Your task to perform on an android device: turn on the 12-hour format for clock Image 0: 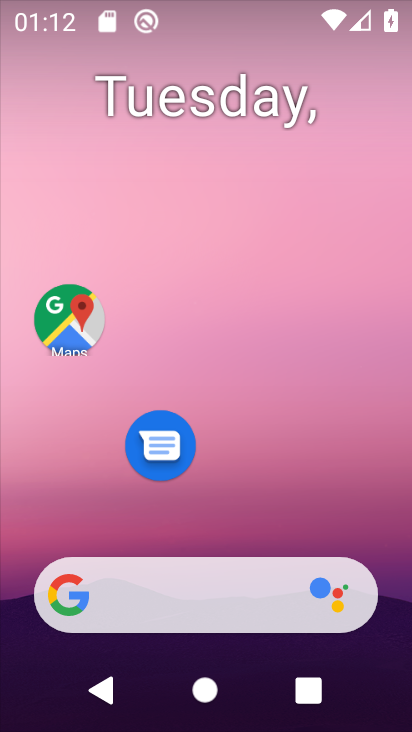
Step 0: drag from (322, 490) to (267, 94)
Your task to perform on an android device: turn on the 12-hour format for clock Image 1: 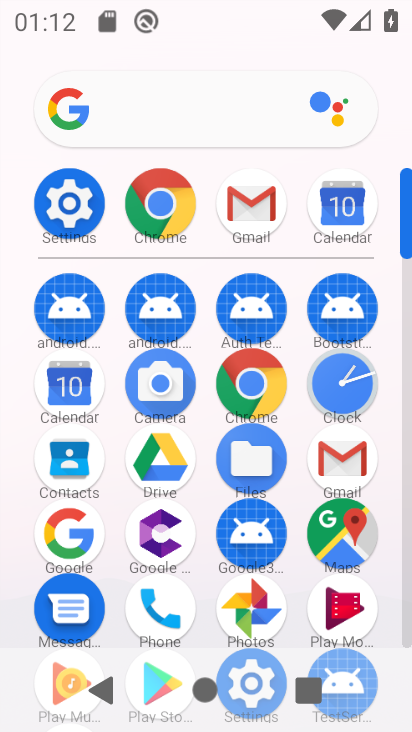
Step 1: click (335, 378)
Your task to perform on an android device: turn on the 12-hour format for clock Image 2: 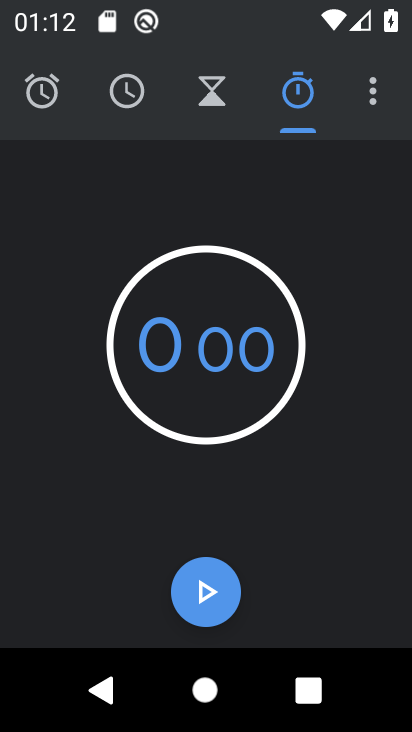
Step 2: click (370, 95)
Your task to perform on an android device: turn on the 12-hour format for clock Image 3: 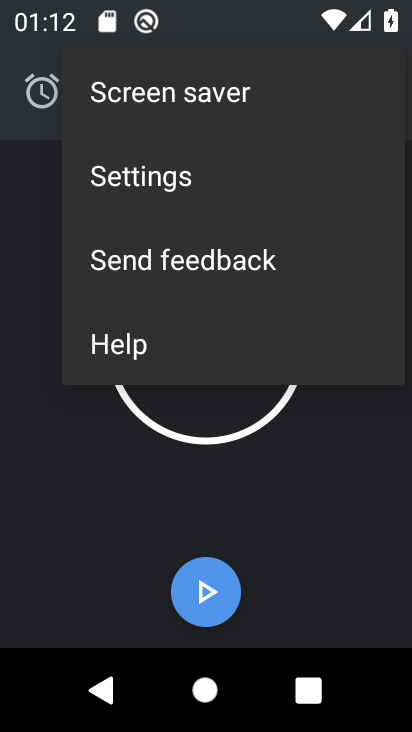
Step 3: click (170, 160)
Your task to perform on an android device: turn on the 12-hour format for clock Image 4: 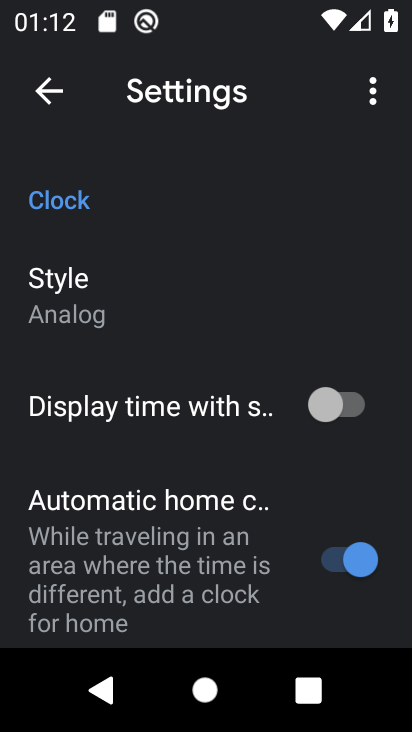
Step 4: drag from (232, 468) to (224, 184)
Your task to perform on an android device: turn on the 12-hour format for clock Image 5: 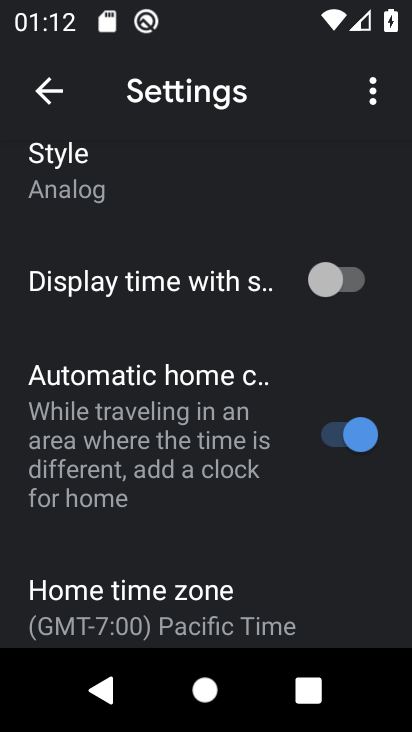
Step 5: drag from (226, 515) to (188, 249)
Your task to perform on an android device: turn on the 12-hour format for clock Image 6: 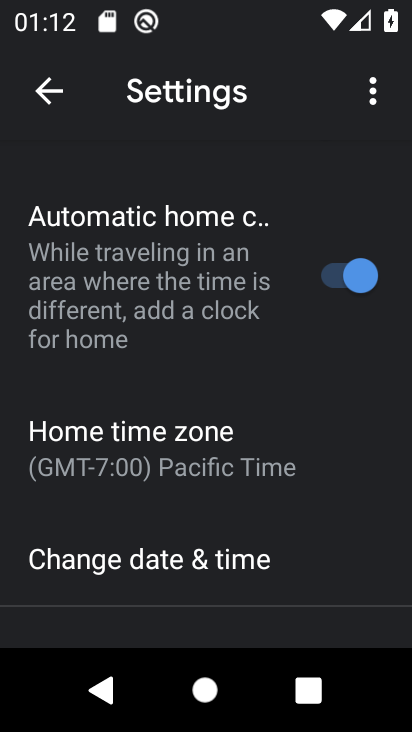
Step 6: click (176, 560)
Your task to perform on an android device: turn on the 12-hour format for clock Image 7: 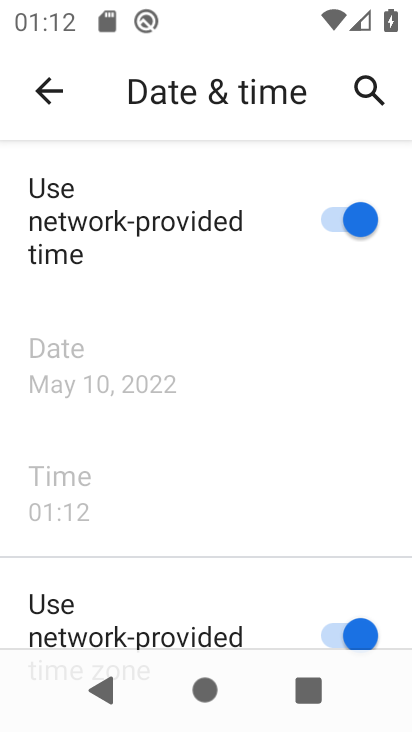
Step 7: drag from (235, 484) to (232, 280)
Your task to perform on an android device: turn on the 12-hour format for clock Image 8: 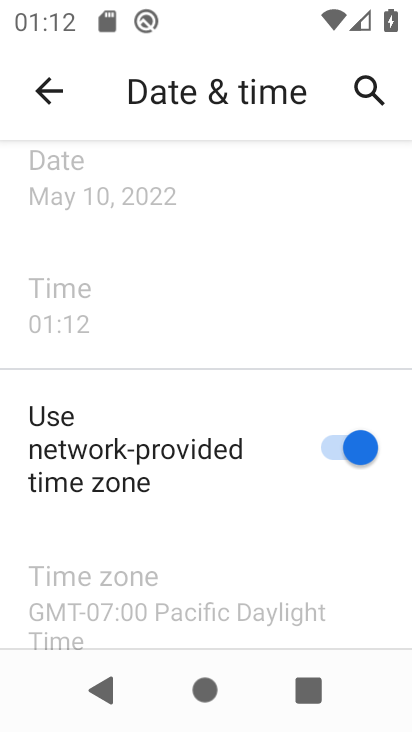
Step 8: drag from (203, 531) to (170, 328)
Your task to perform on an android device: turn on the 12-hour format for clock Image 9: 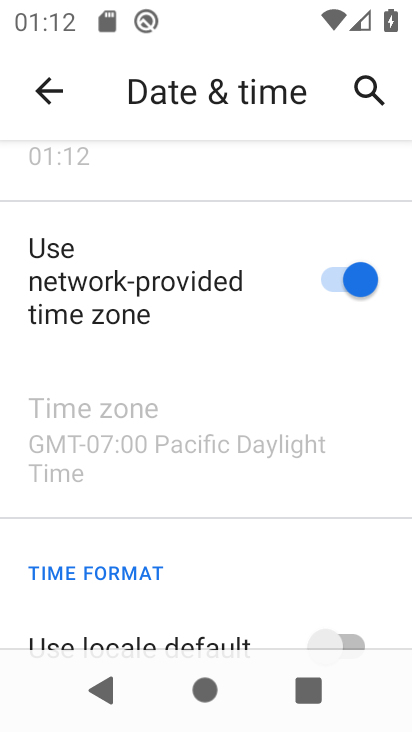
Step 9: drag from (205, 482) to (193, 260)
Your task to perform on an android device: turn on the 12-hour format for clock Image 10: 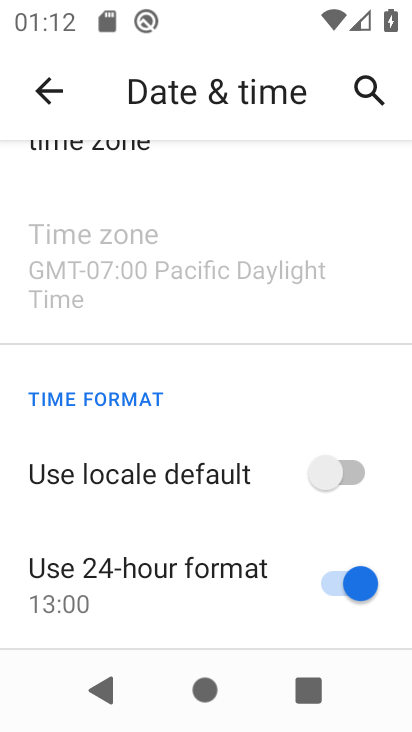
Step 10: click (321, 474)
Your task to perform on an android device: turn on the 12-hour format for clock Image 11: 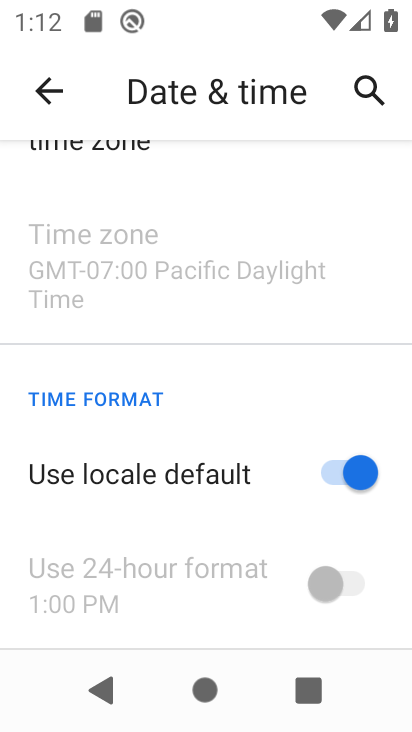
Step 11: task complete